Your task to perform on an android device: change text size in settings app Image 0: 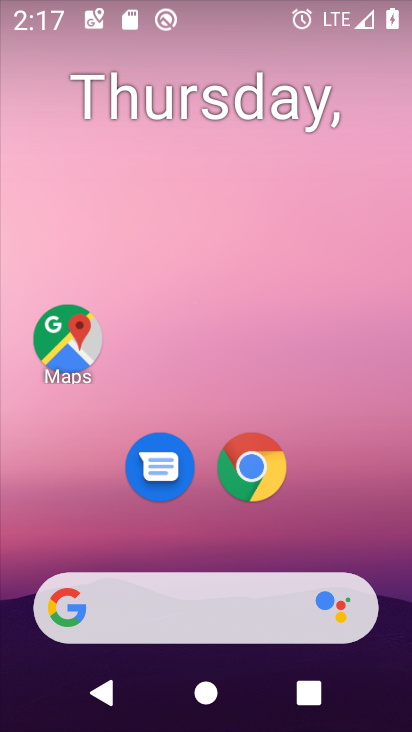
Step 0: drag from (235, 534) to (206, 14)
Your task to perform on an android device: change text size in settings app Image 1: 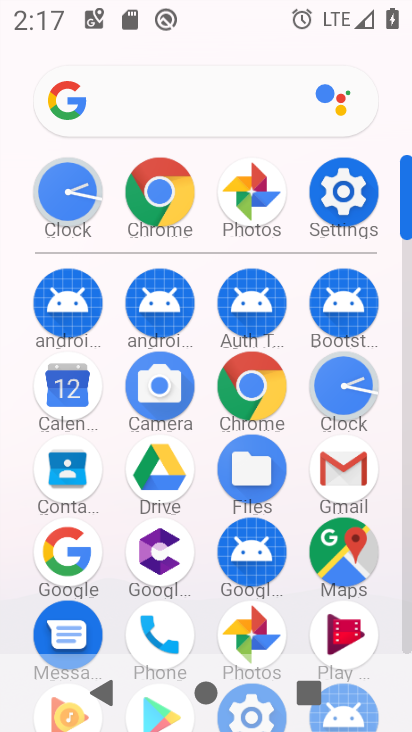
Step 1: click (334, 179)
Your task to perform on an android device: change text size in settings app Image 2: 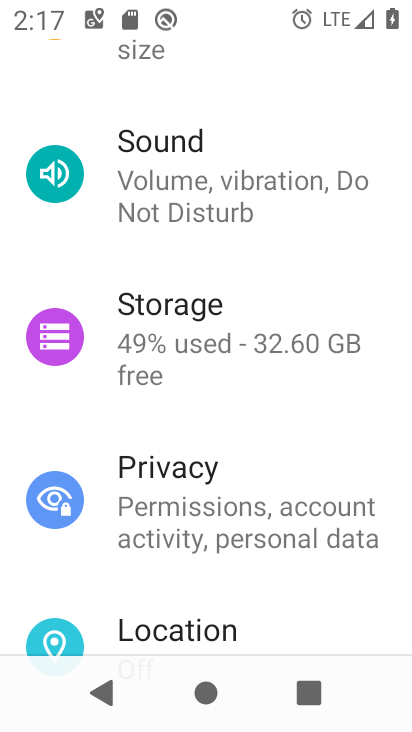
Step 2: drag from (165, 146) to (156, 542)
Your task to perform on an android device: change text size in settings app Image 3: 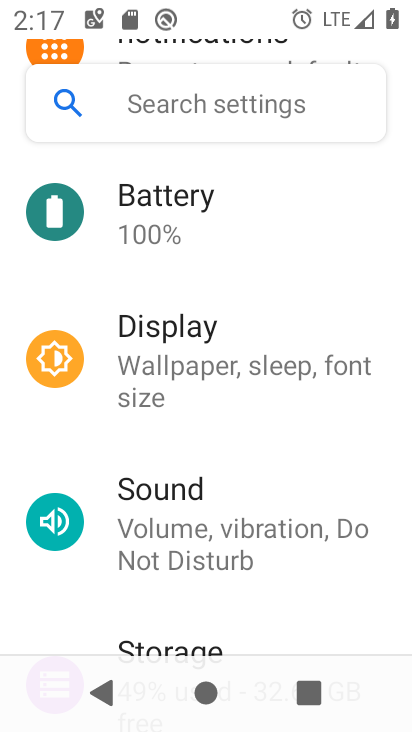
Step 3: drag from (170, 249) to (178, 378)
Your task to perform on an android device: change text size in settings app Image 4: 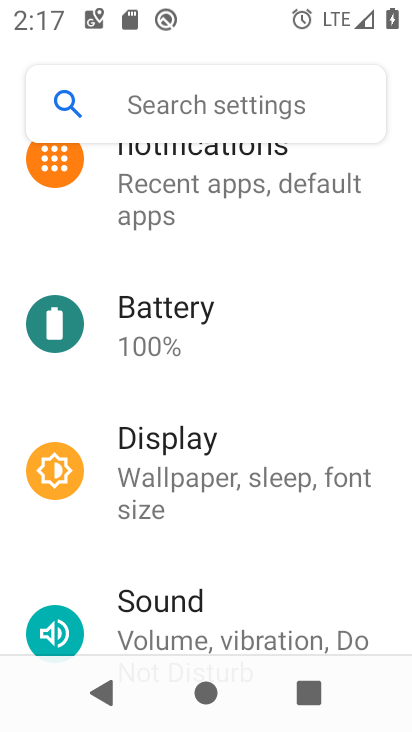
Step 4: click (170, 496)
Your task to perform on an android device: change text size in settings app Image 5: 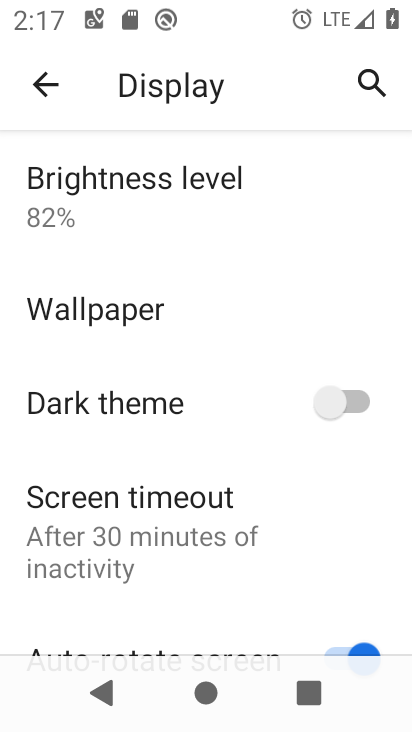
Step 5: drag from (182, 503) to (193, 38)
Your task to perform on an android device: change text size in settings app Image 6: 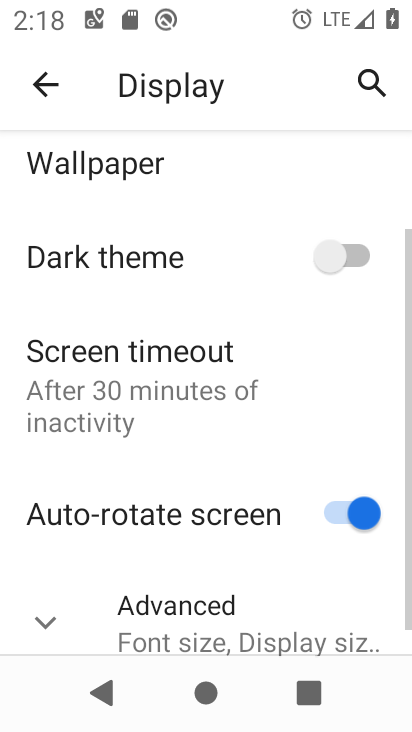
Step 6: click (263, 616)
Your task to perform on an android device: change text size in settings app Image 7: 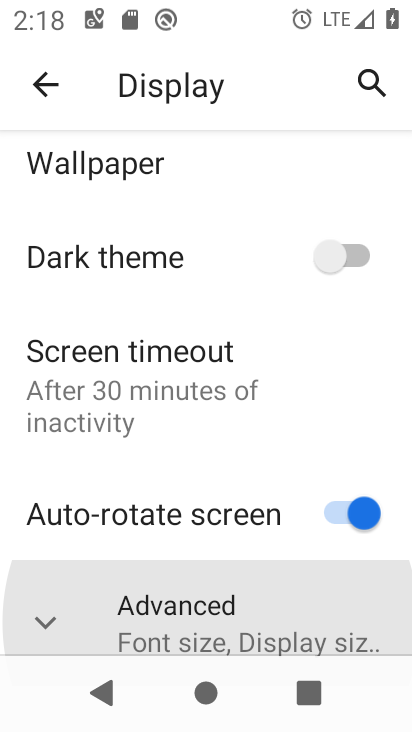
Step 7: drag from (262, 597) to (262, 154)
Your task to perform on an android device: change text size in settings app Image 8: 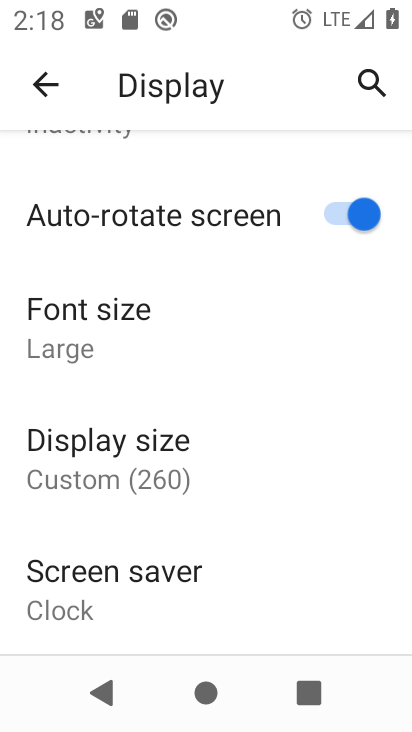
Step 8: click (182, 468)
Your task to perform on an android device: change text size in settings app Image 9: 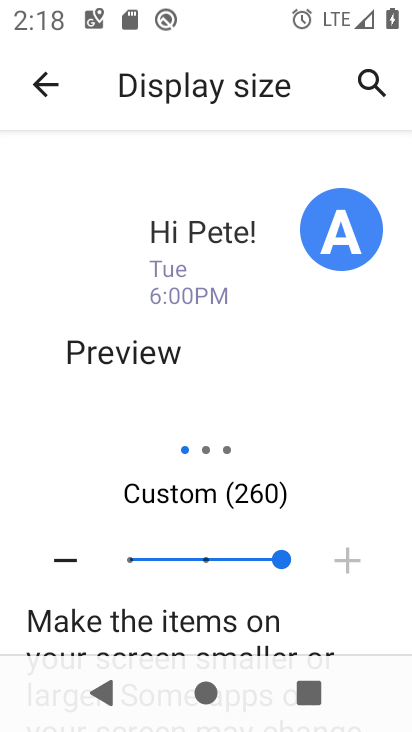
Step 9: click (41, 90)
Your task to perform on an android device: change text size in settings app Image 10: 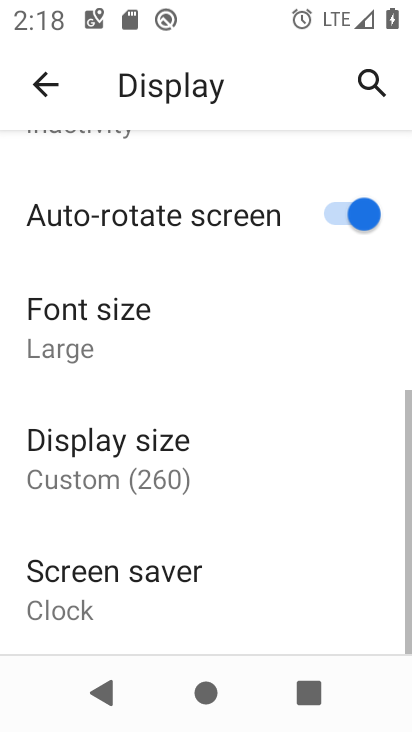
Step 10: click (110, 343)
Your task to perform on an android device: change text size in settings app Image 11: 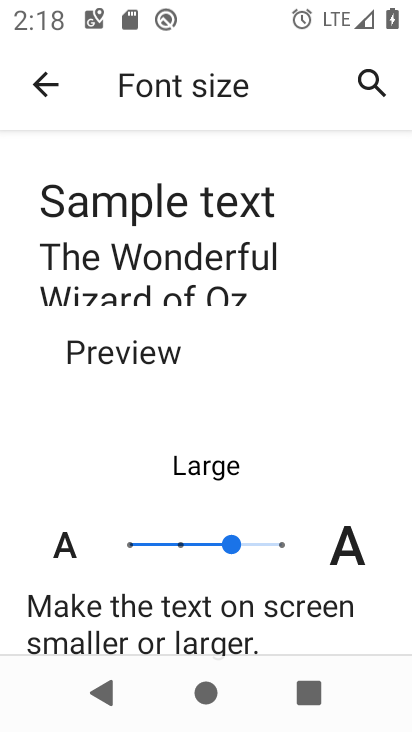
Step 11: click (186, 537)
Your task to perform on an android device: change text size in settings app Image 12: 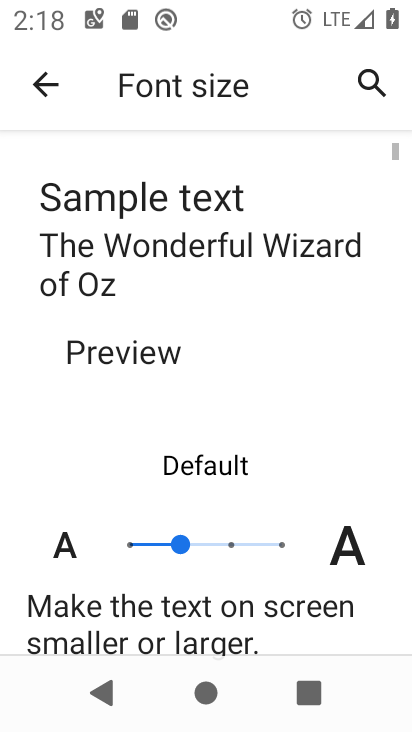
Step 12: task complete